Your task to perform on an android device: Go to Android settings Image 0: 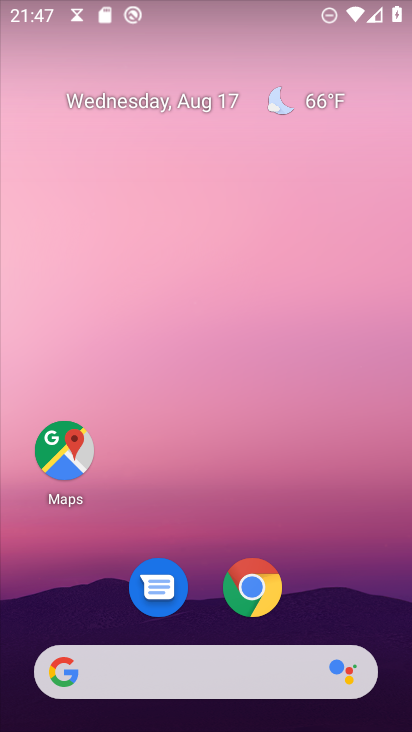
Step 0: drag from (17, 679) to (402, 42)
Your task to perform on an android device: Go to Android settings Image 1: 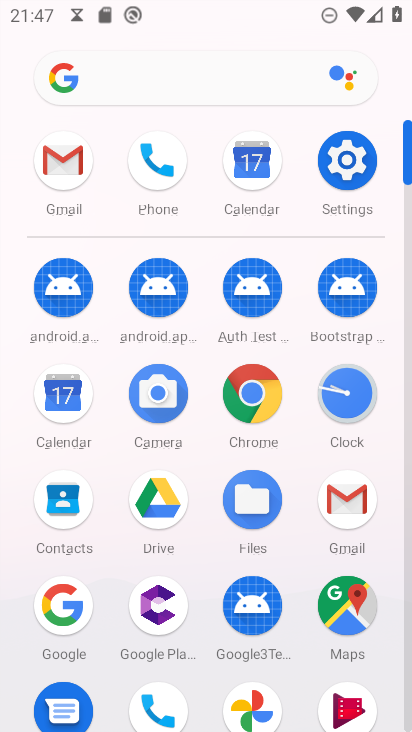
Step 1: click (352, 162)
Your task to perform on an android device: Go to Android settings Image 2: 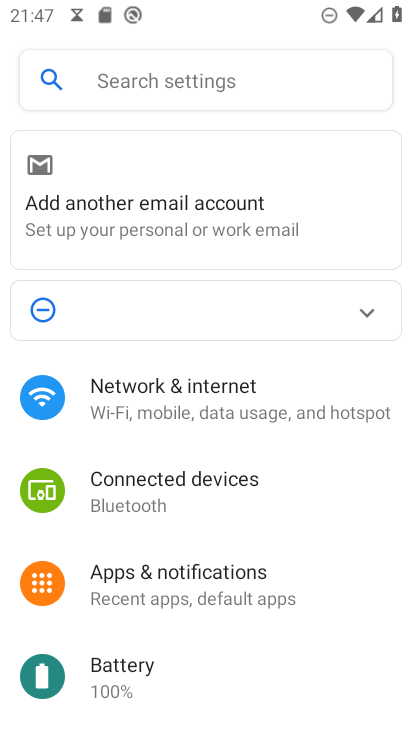
Step 2: drag from (347, 680) to (409, 138)
Your task to perform on an android device: Go to Android settings Image 3: 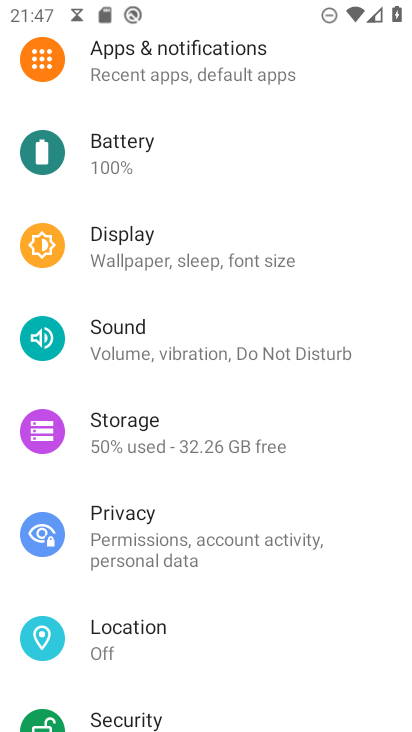
Step 3: drag from (296, 670) to (396, 172)
Your task to perform on an android device: Go to Android settings Image 4: 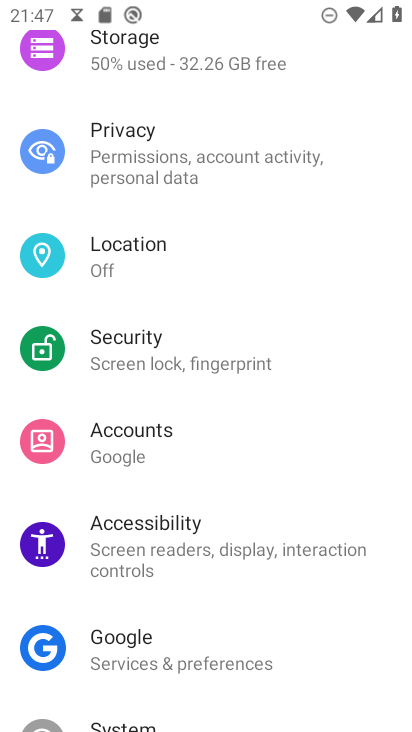
Step 4: drag from (347, 619) to (397, 98)
Your task to perform on an android device: Go to Android settings Image 5: 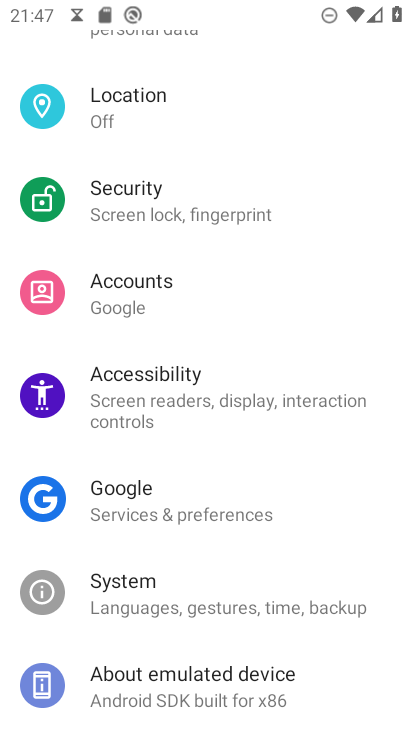
Step 5: click (200, 683)
Your task to perform on an android device: Go to Android settings Image 6: 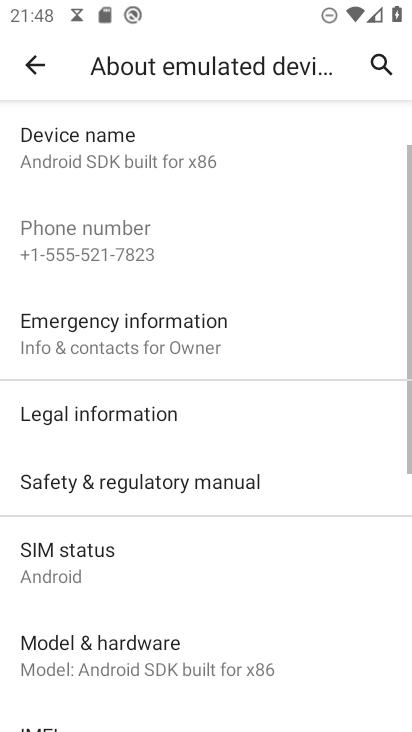
Step 6: drag from (370, 686) to (365, 232)
Your task to perform on an android device: Go to Android settings Image 7: 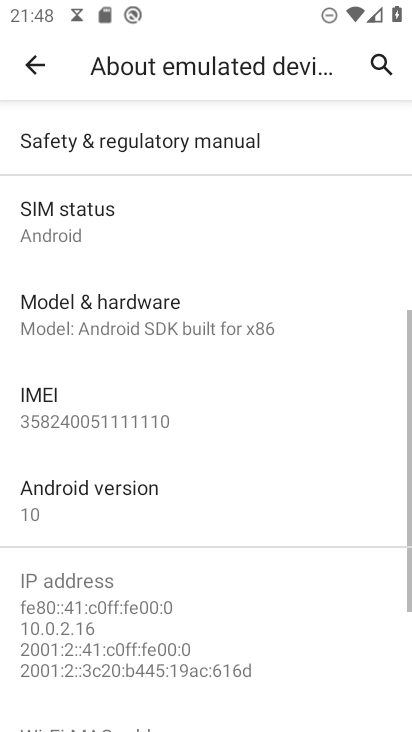
Step 7: click (124, 496)
Your task to perform on an android device: Go to Android settings Image 8: 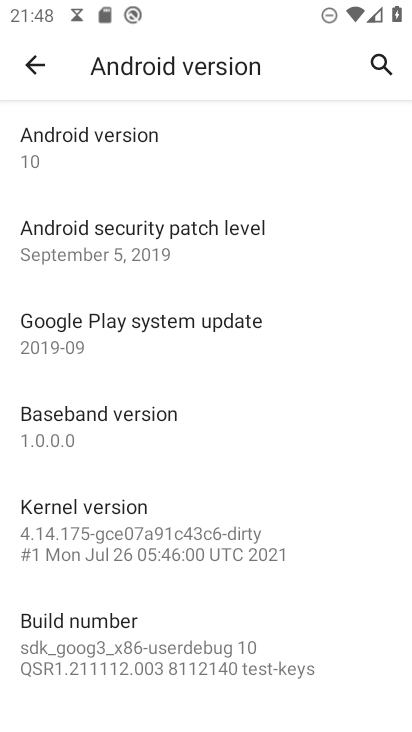
Step 8: task complete